Your task to perform on an android device: open sync settings in chrome Image 0: 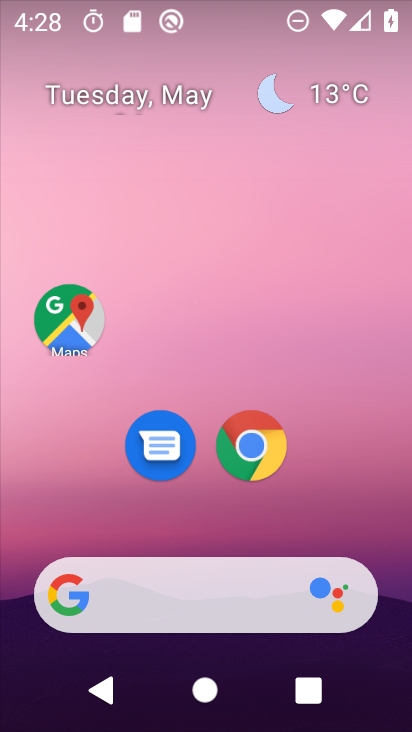
Step 0: press home button
Your task to perform on an android device: open sync settings in chrome Image 1: 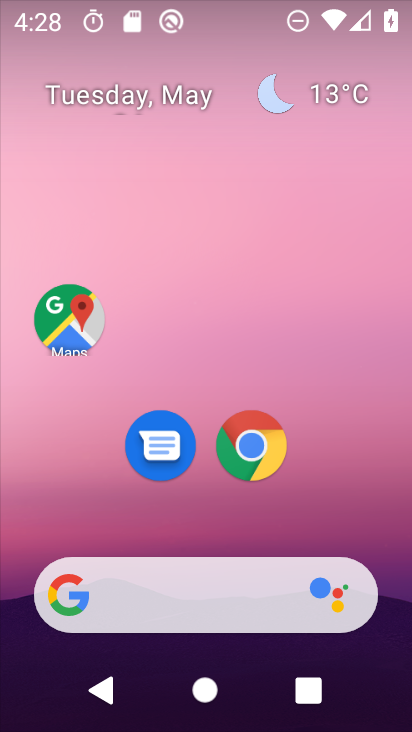
Step 1: click (246, 435)
Your task to perform on an android device: open sync settings in chrome Image 2: 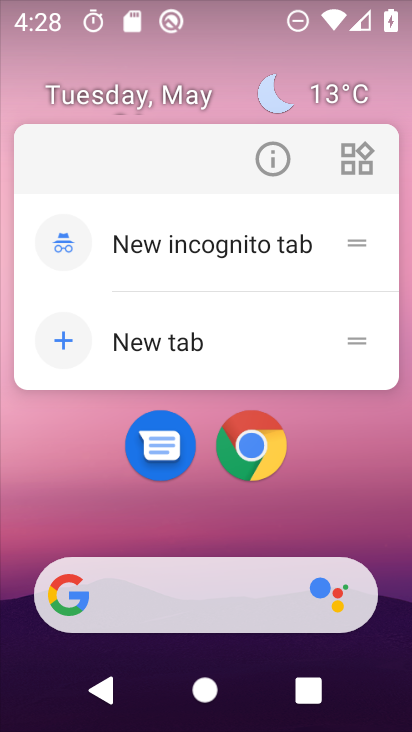
Step 2: click (244, 433)
Your task to perform on an android device: open sync settings in chrome Image 3: 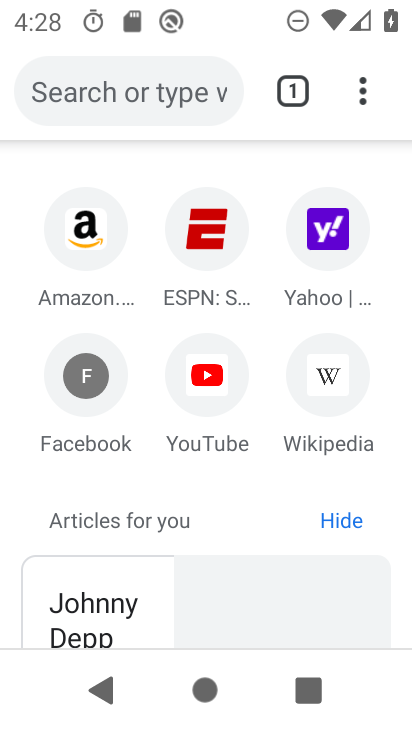
Step 3: click (358, 92)
Your task to perform on an android device: open sync settings in chrome Image 4: 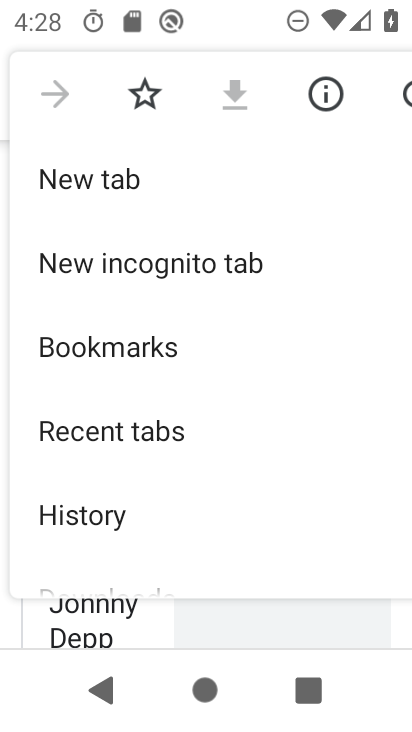
Step 4: drag from (190, 519) to (251, 234)
Your task to perform on an android device: open sync settings in chrome Image 5: 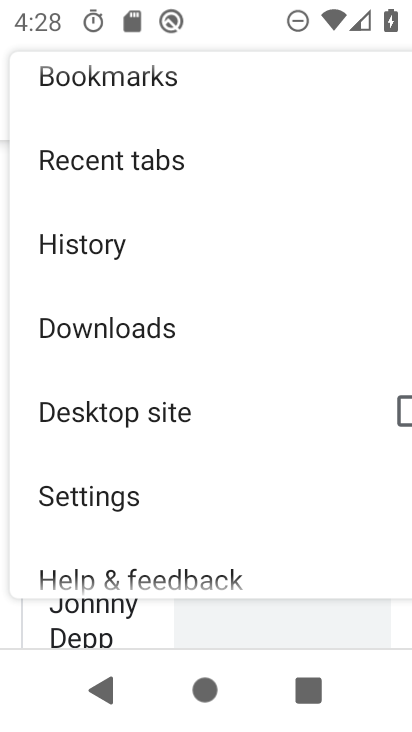
Step 5: click (154, 490)
Your task to perform on an android device: open sync settings in chrome Image 6: 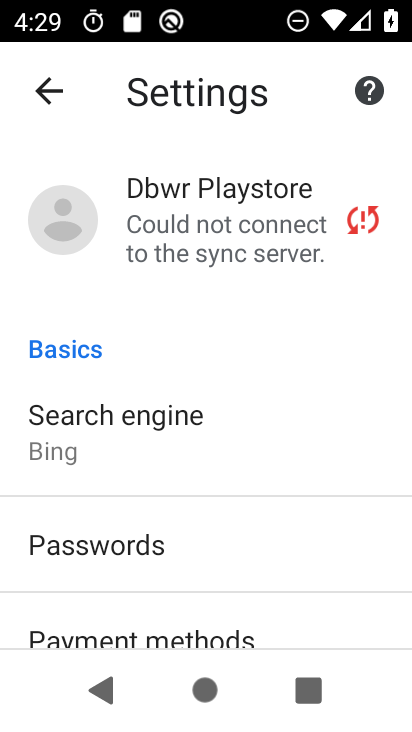
Step 6: drag from (265, 620) to (287, 242)
Your task to perform on an android device: open sync settings in chrome Image 7: 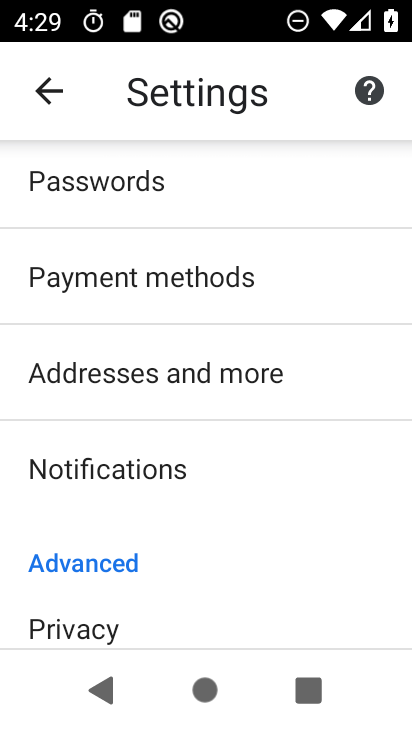
Step 7: drag from (286, 156) to (281, 711)
Your task to perform on an android device: open sync settings in chrome Image 8: 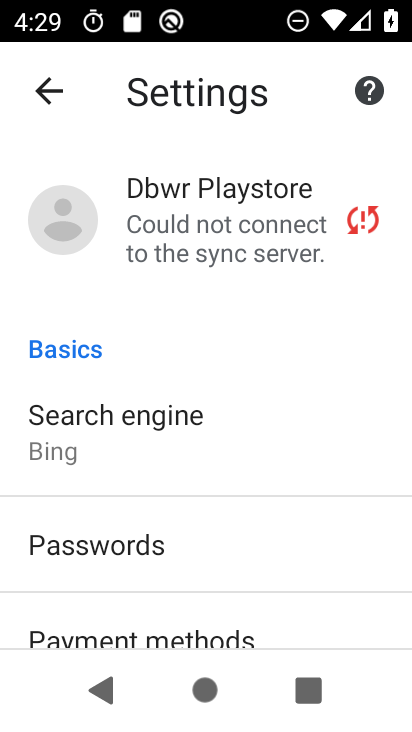
Step 8: click (255, 222)
Your task to perform on an android device: open sync settings in chrome Image 9: 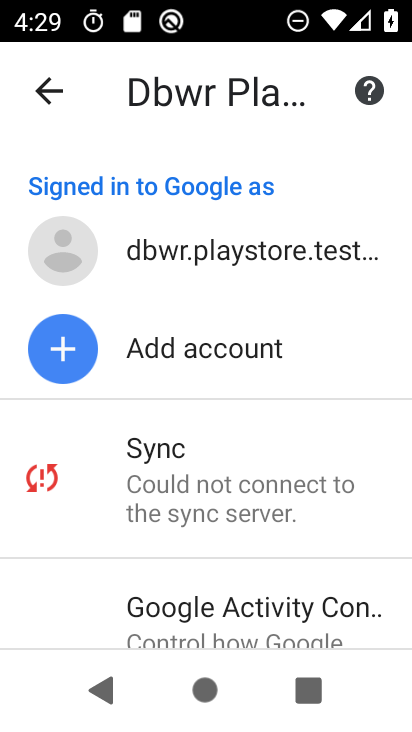
Step 9: click (210, 454)
Your task to perform on an android device: open sync settings in chrome Image 10: 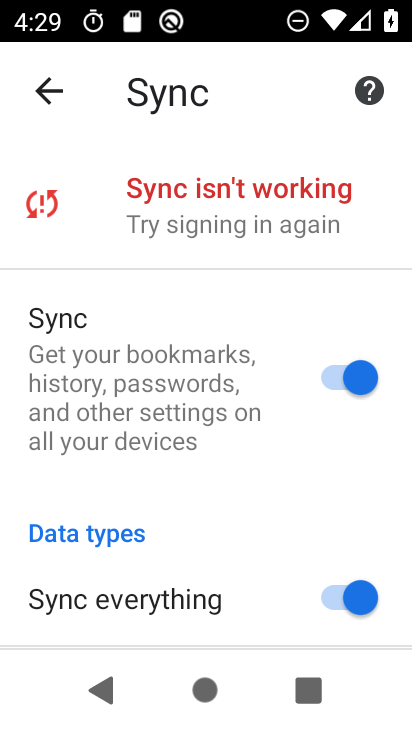
Step 10: task complete